Your task to perform on an android device: turn off location Image 0: 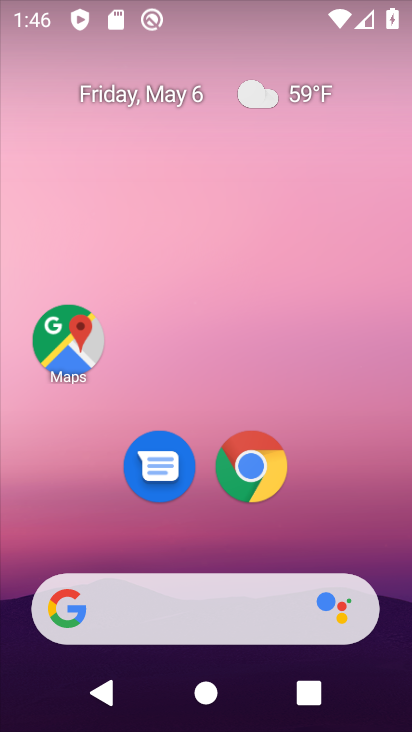
Step 0: drag from (213, 541) to (231, 115)
Your task to perform on an android device: turn off location Image 1: 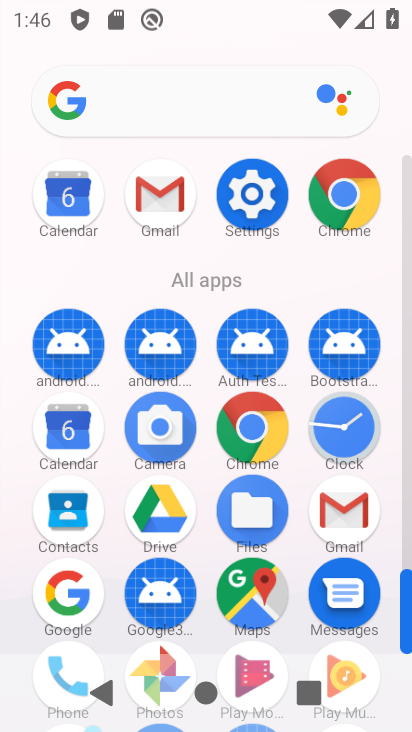
Step 1: click (251, 188)
Your task to perform on an android device: turn off location Image 2: 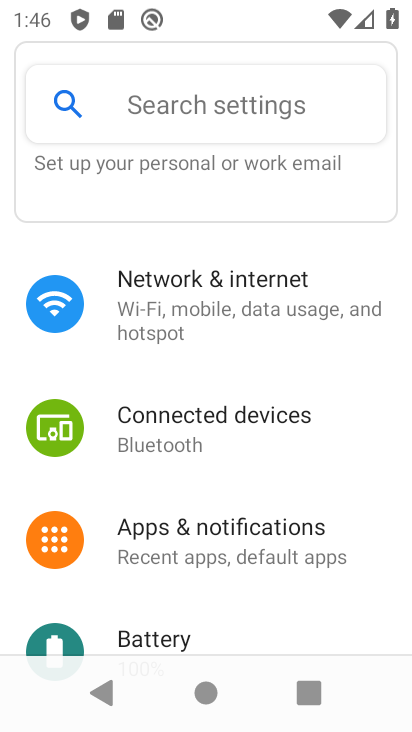
Step 2: drag from (212, 612) to (242, 126)
Your task to perform on an android device: turn off location Image 3: 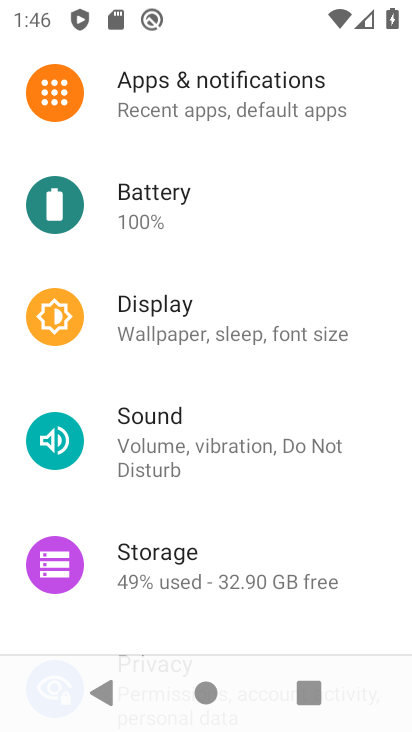
Step 3: drag from (214, 556) to (217, 169)
Your task to perform on an android device: turn off location Image 4: 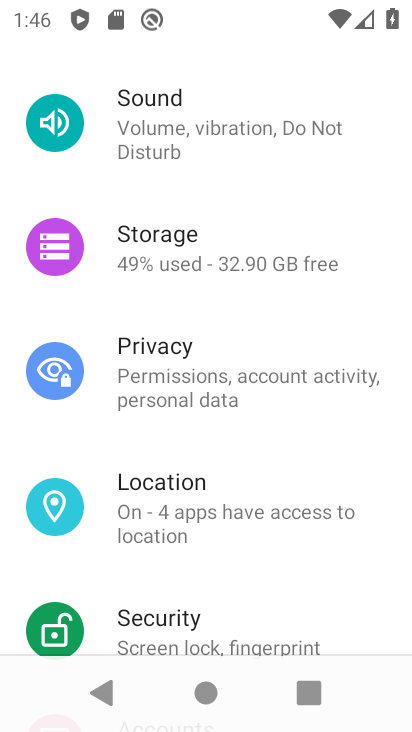
Step 4: click (215, 490)
Your task to perform on an android device: turn off location Image 5: 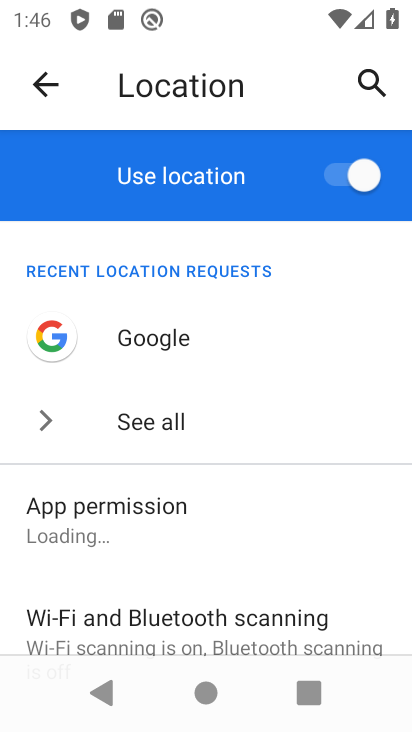
Step 5: click (343, 171)
Your task to perform on an android device: turn off location Image 6: 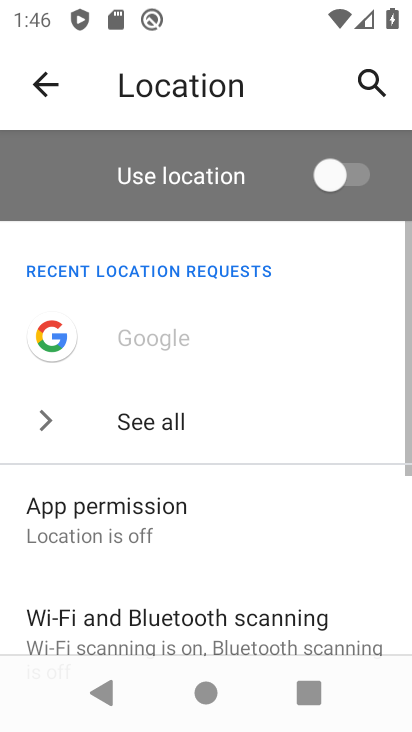
Step 6: task complete